Your task to perform on an android device: change alarm snooze length Image 0: 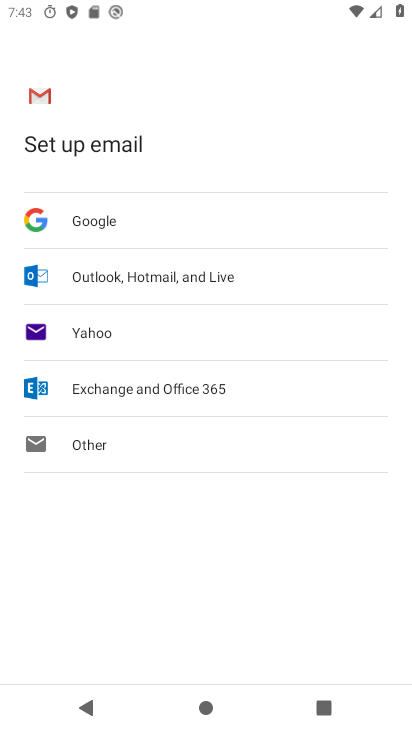
Step 0: press home button
Your task to perform on an android device: change alarm snooze length Image 1: 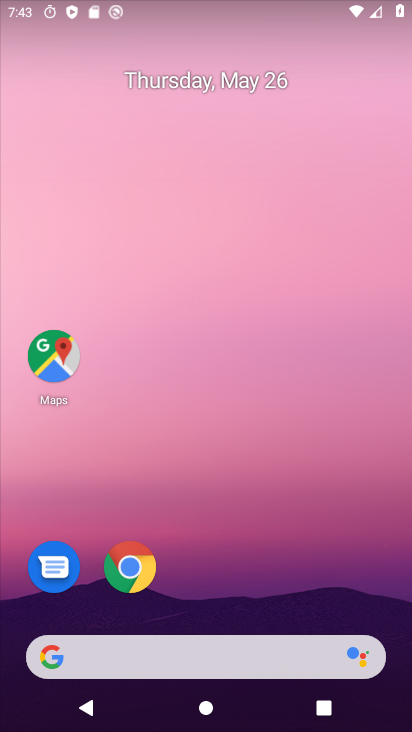
Step 1: drag from (183, 663) to (358, 90)
Your task to perform on an android device: change alarm snooze length Image 2: 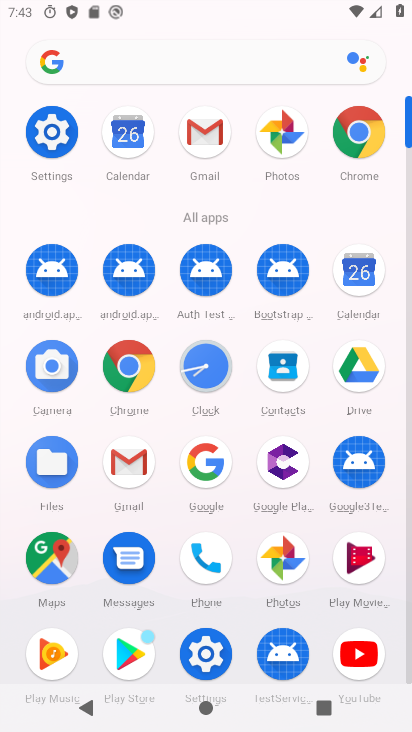
Step 2: click (193, 371)
Your task to perform on an android device: change alarm snooze length Image 3: 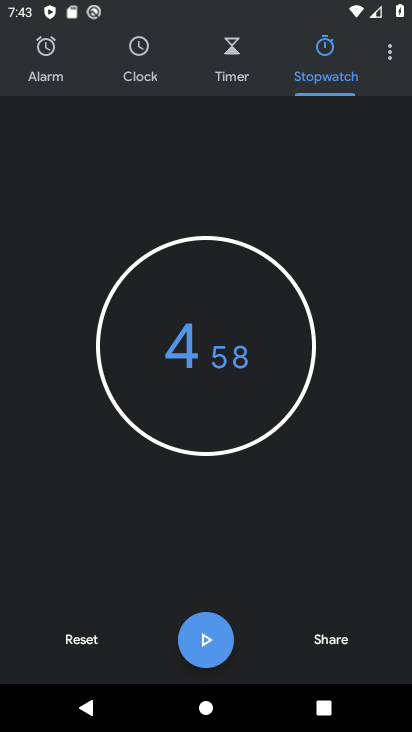
Step 3: click (390, 58)
Your task to perform on an android device: change alarm snooze length Image 4: 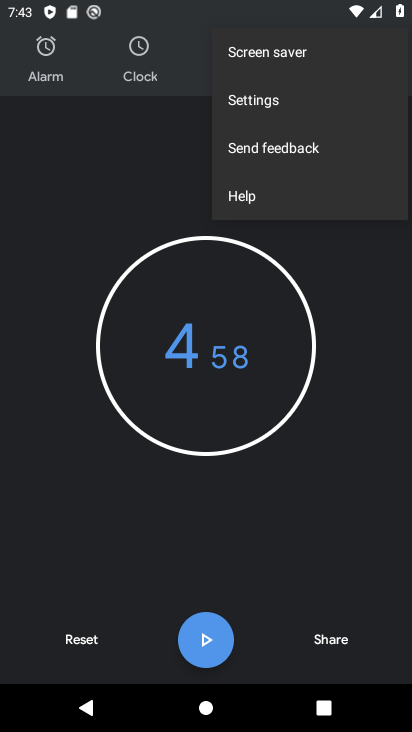
Step 4: click (251, 102)
Your task to perform on an android device: change alarm snooze length Image 5: 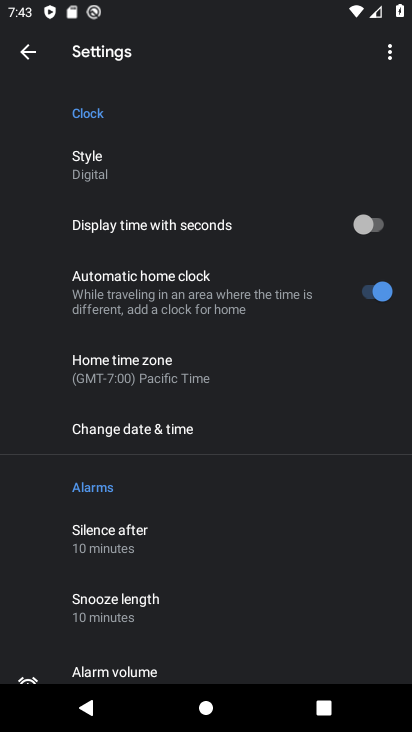
Step 5: click (129, 607)
Your task to perform on an android device: change alarm snooze length Image 6: 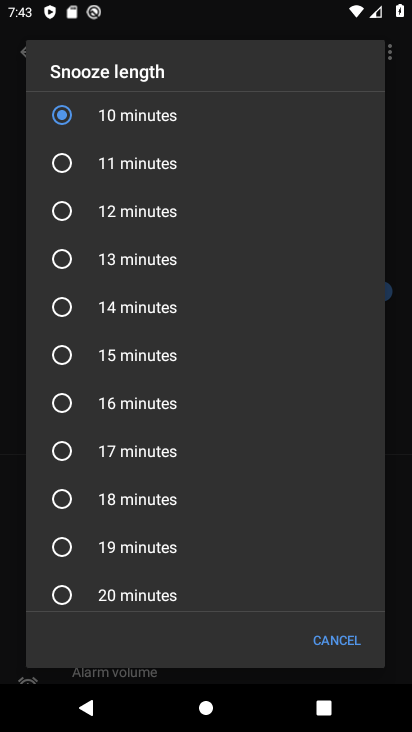
Step 6: click (62, 364)
Your task to perform on an android device: change alarm snooze length Image 7: 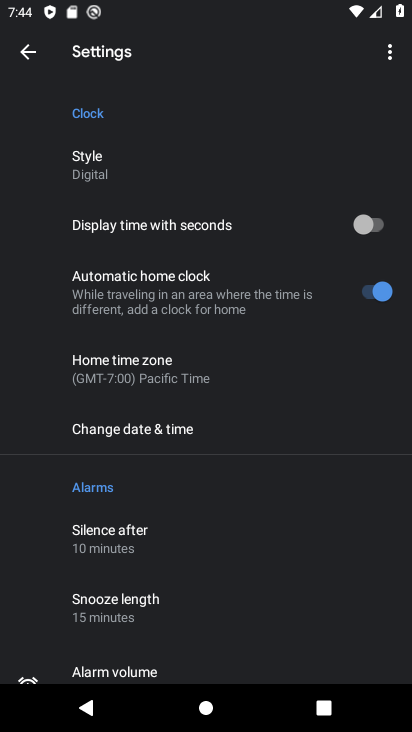
Step 7: task complete